Your task to perform on an android device: Go to network settings Image 0: 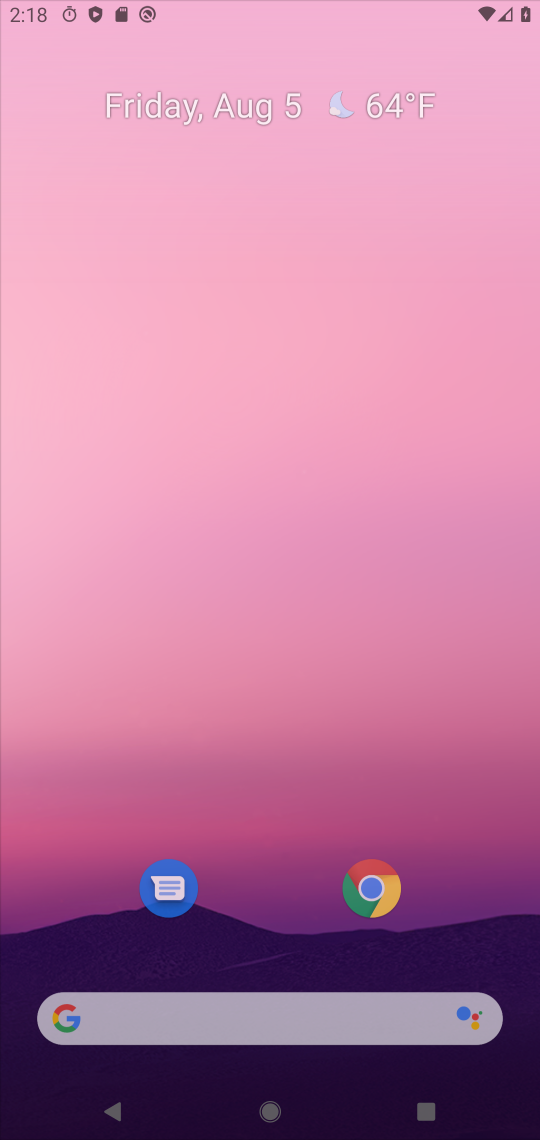
Step 0: press home button
Your task to perform on an android device: Go to network settings Image 1: 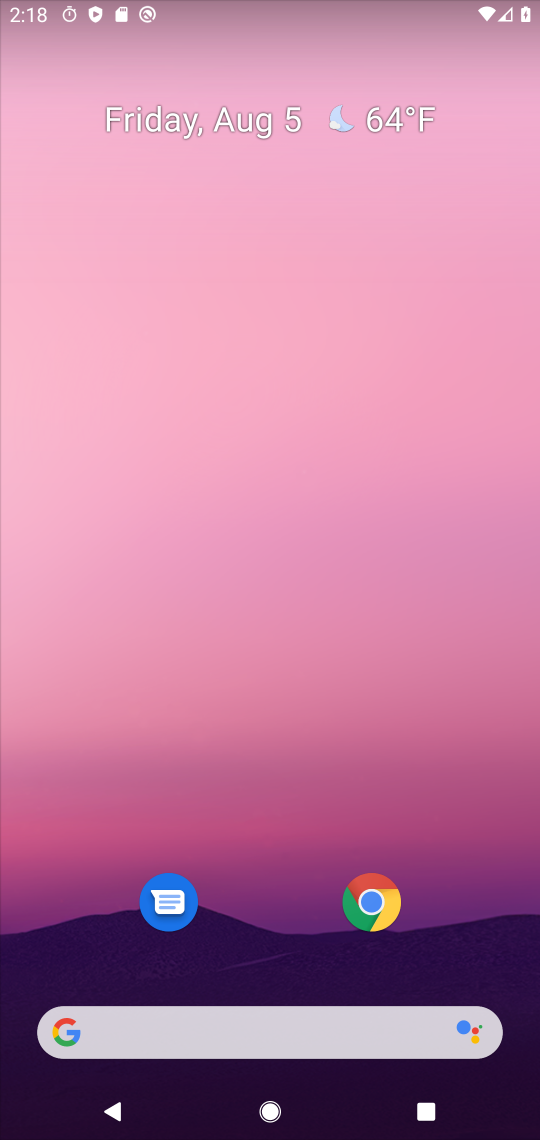
Step 1: drag from (324, 1072) to (222, 471)
Your task to perform on an android device: Go to network settings Image 2: 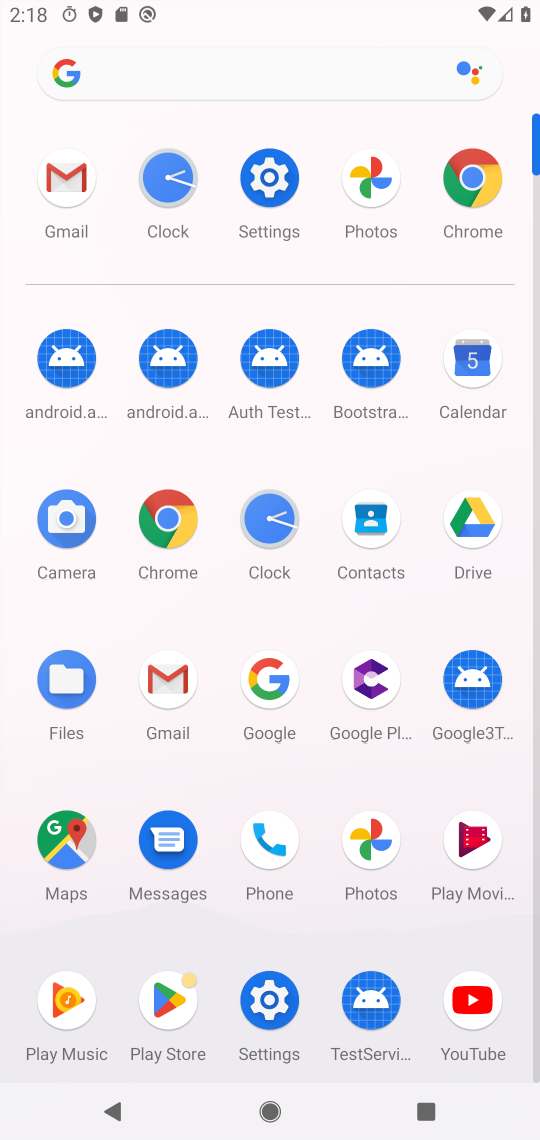
Step 2: click (263, 194)
Your task to perform on an android device: Go to network settings Image 3: 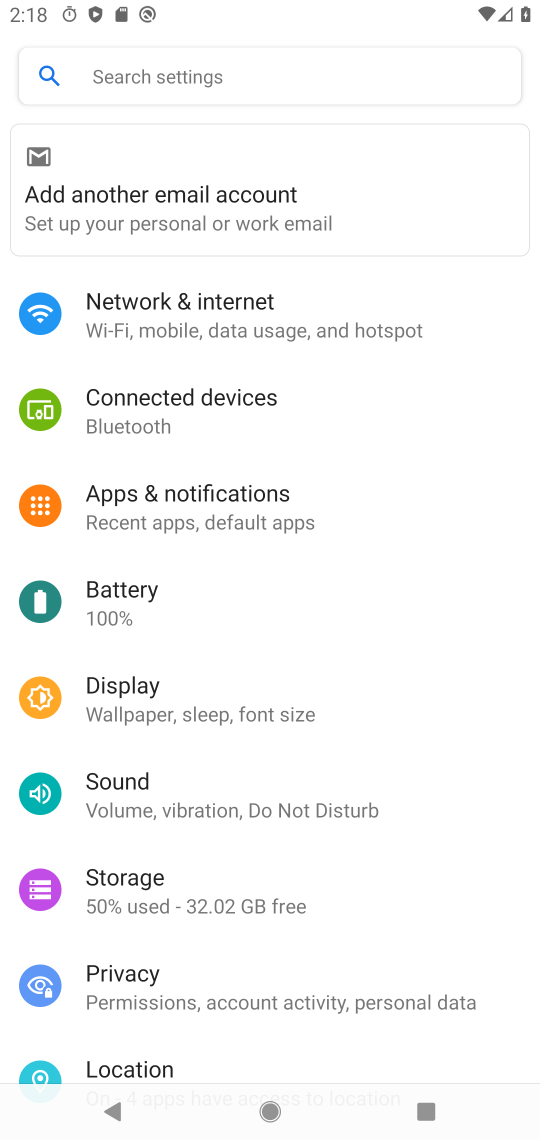
Step 3: click (166, 333)
Your task to perform on an android device: Go to network settings Image 4: 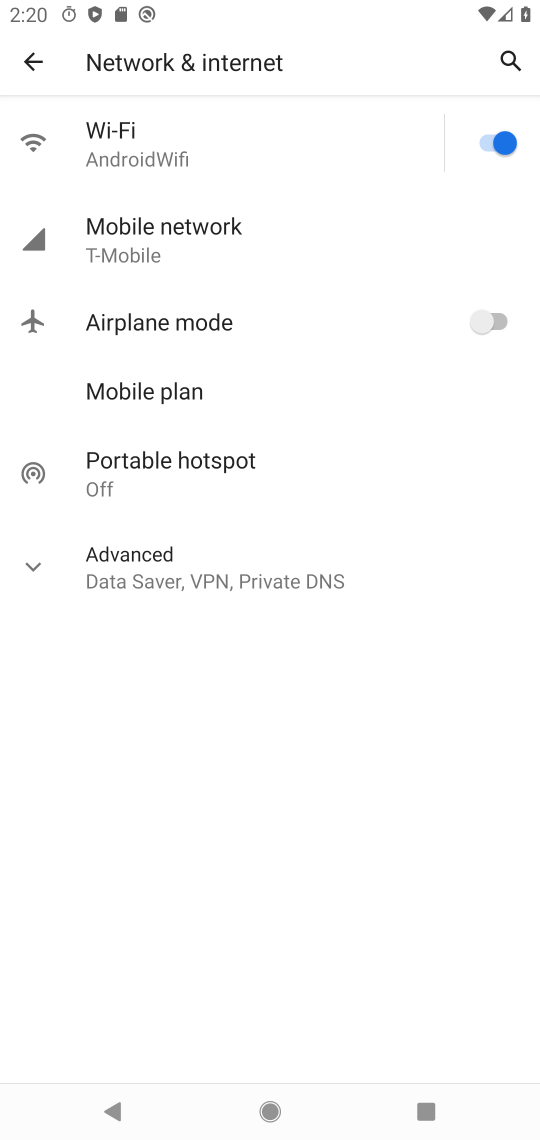
Step 4: task complete